Your task to perform on an android device: add a contact Image 0: 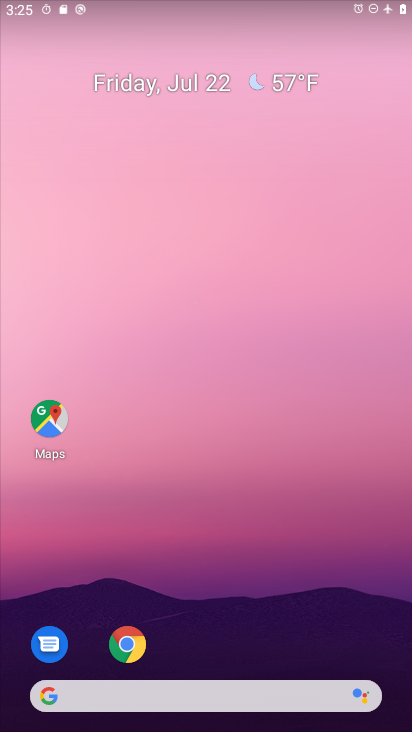
Step 0: drag from (231, 526) to (256, 250)
Your task to perform on an android device: add a contact Image 1: 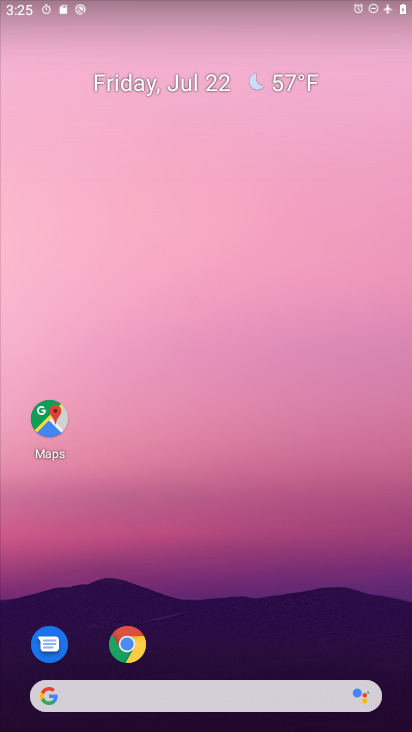
Step 1: click (220, 233)
Your task to perform on an android device: add a contact Image 2: 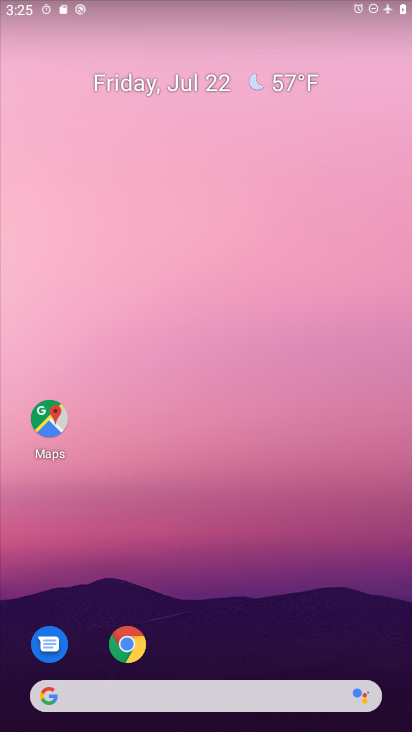
Step 2: drag from (220, 646) to (227, 208)
Your task to perform on an android device: add a contact Image 3: 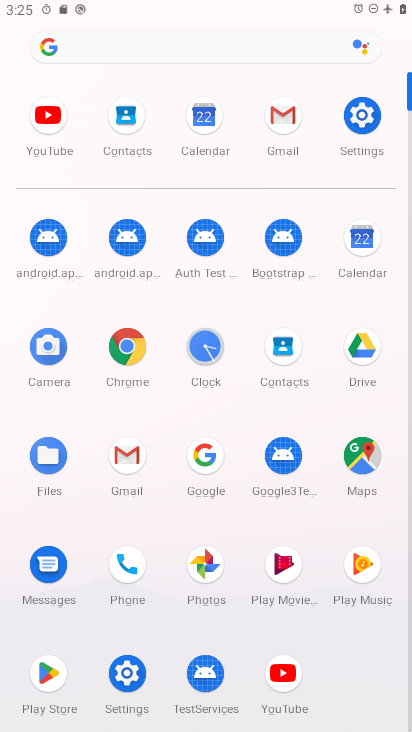
Step 3: click (274, 359)
Your task to perform on an android device: add a contact Image 4: 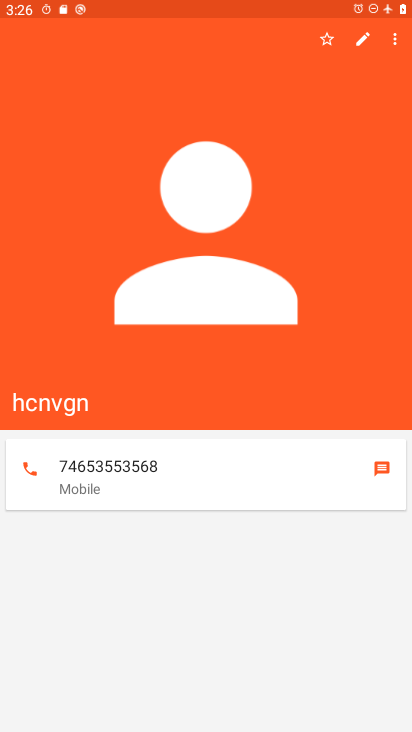
Step 4: press back button
Your task to perform on an android device: add a contact Image 5: 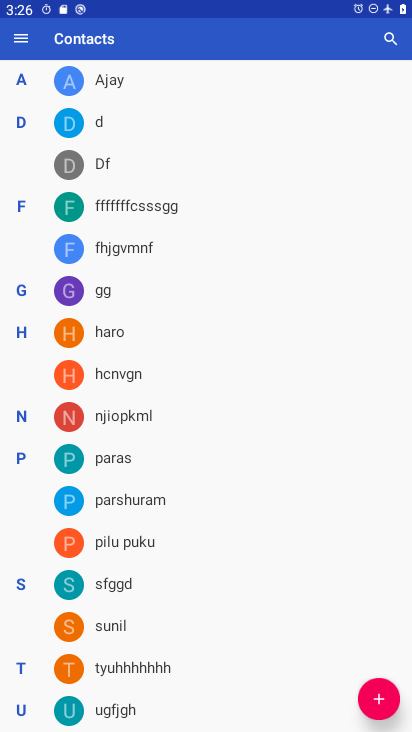
Step 5: click (383, 697)
Your task to perform on an android device: add a contact Image 6: 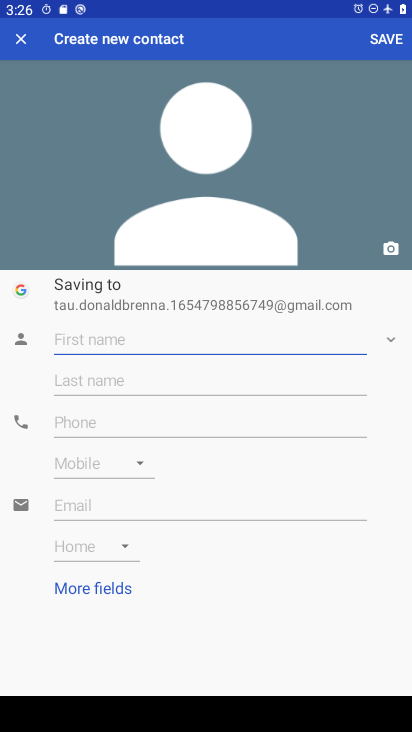
Step 6: type "gdgfdg"
Your task to perform on an android device: add a contact Image 7: 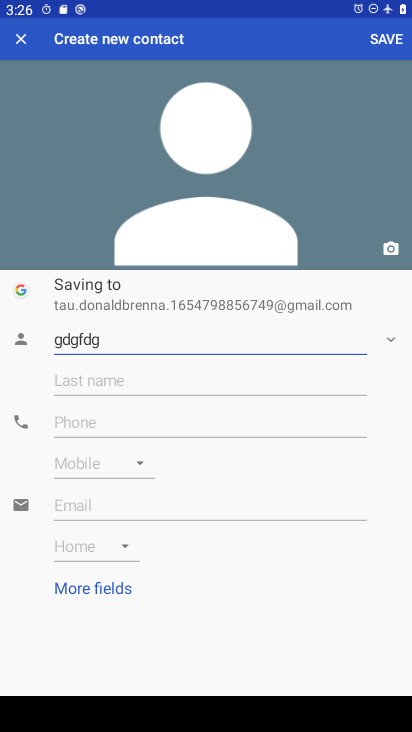
Step 7: click (195, 425)
Your task to perform on an android device: add a contact Image 8: 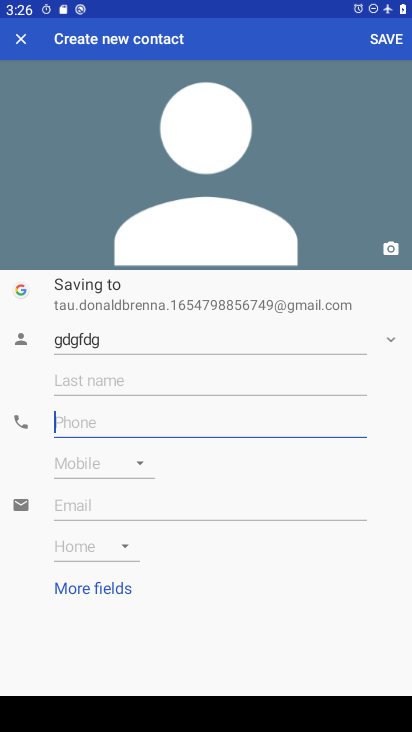
Step 8: type "986745465767"
Your task to perform on an android device: add a contact Image 9: 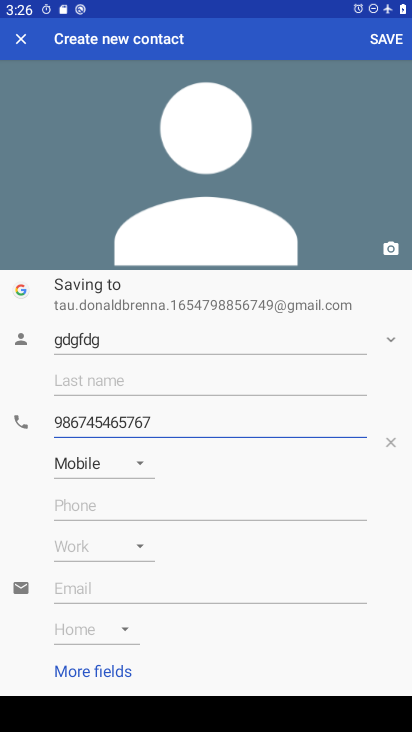
Step 9: click (390, 51)
Your task to perform on an android device: add a contact Image 10: 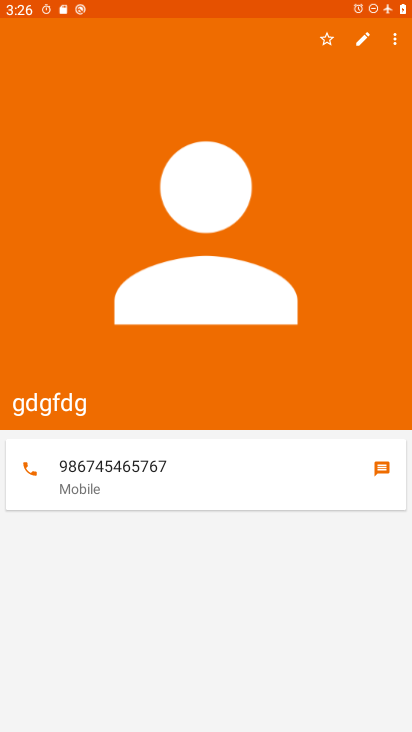
Step 10: task complete